Your task to perform on an android device: Is it going to rain today? Image 0: 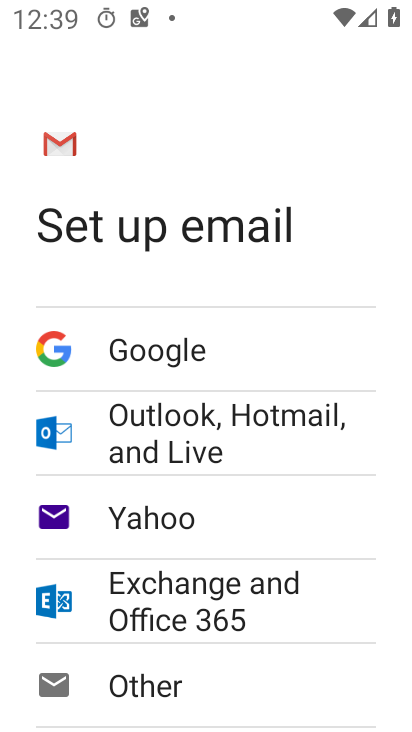
Step 0: press home button
Your task to perform on an android device: Is it going to rain today? Image 1: 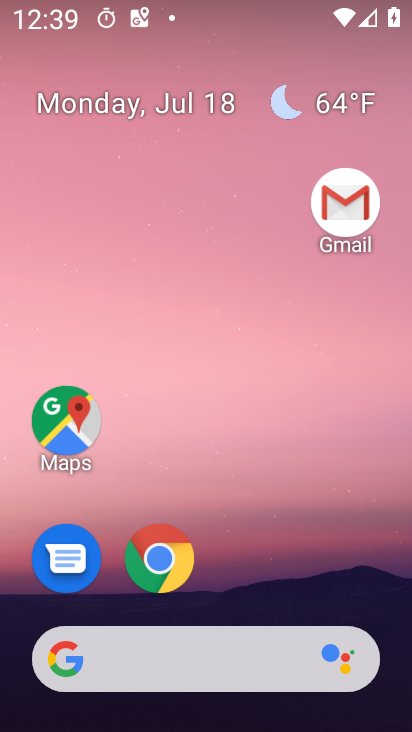
Step 1: click (280, 656)
Your task to perform on an android device: Is it going to rain today? Image 2: 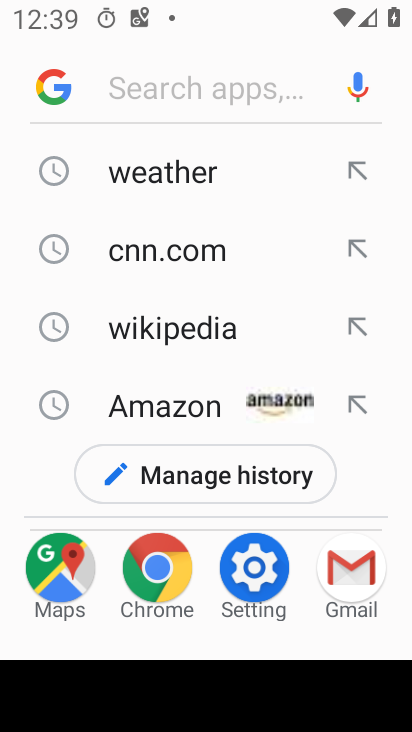
Step 2: click (169, 169)
Your task to perform on an android device: Is it going to rain today? Image 3: 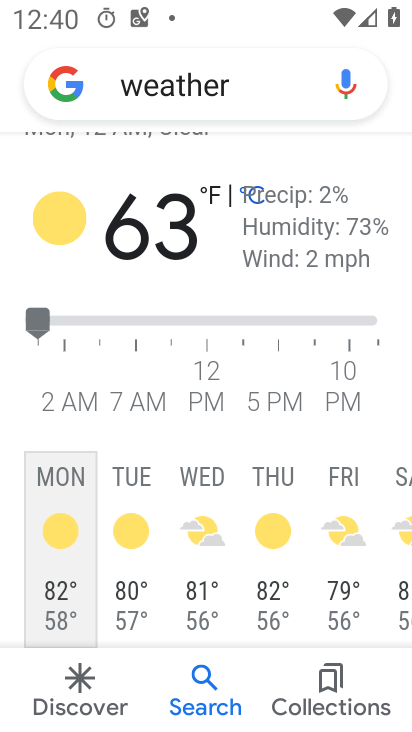
Step 3: task complete